Your task to perform on an android device: change alarm snooze length Image 0: 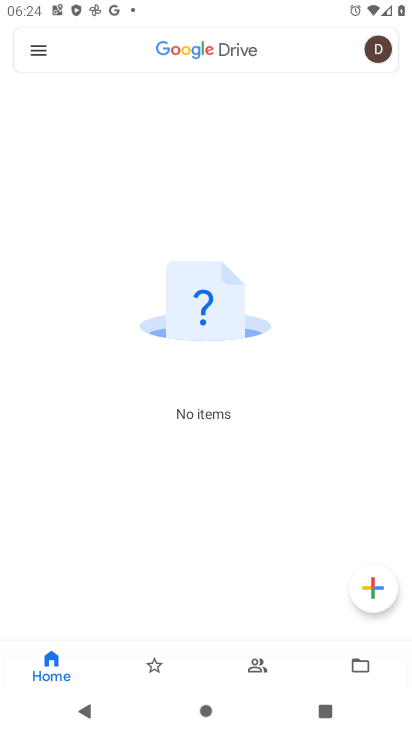
Step 0: click (129, 587)
Your task to perform on an android device: change alarm snooze length Image 1: 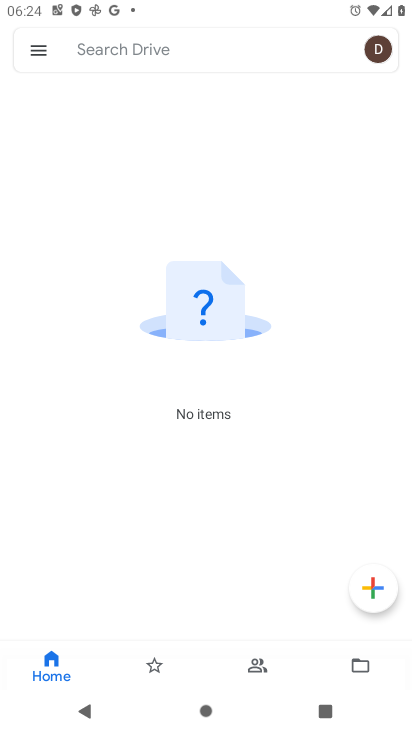
Step 1: press home button
Your task to perform on an android device: change alarm snooze length Image 2: 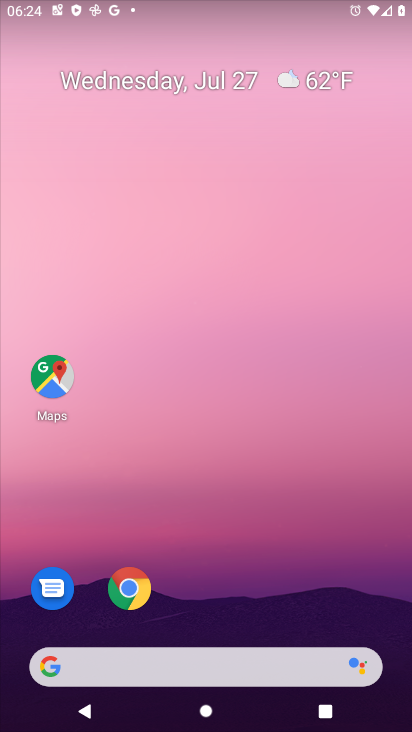
Step 2: drag from (185, 605) to (164, 198)
Your task to perform on an android device: change alarm snooze length Image 3: 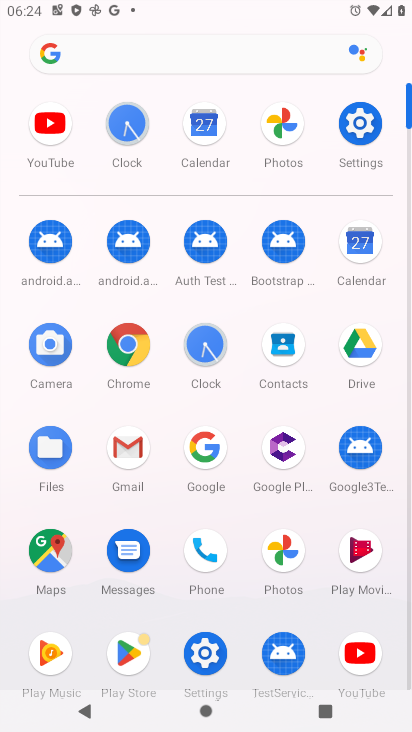
Step 3: click (199, 339)
Your task to perform on an android device: change alarm snooze length Image 4: 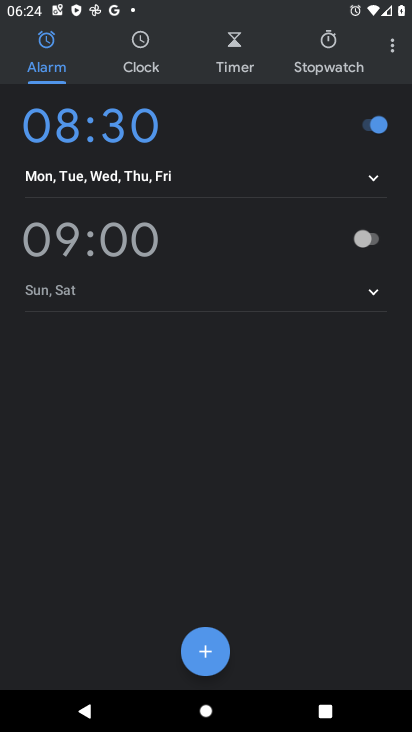
Step 4: click (394, 44)
Your task to perform on an android device: change alarm snooze length Image 5: 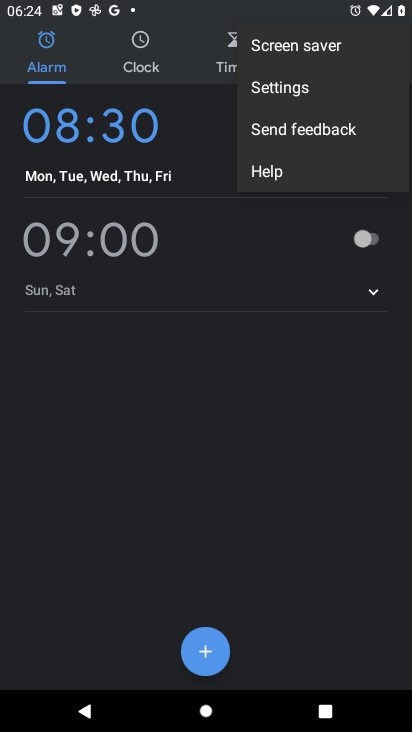
Step 5: click (260, 87)
Your task to perform on an android device: change alarm snooze length Image 6: 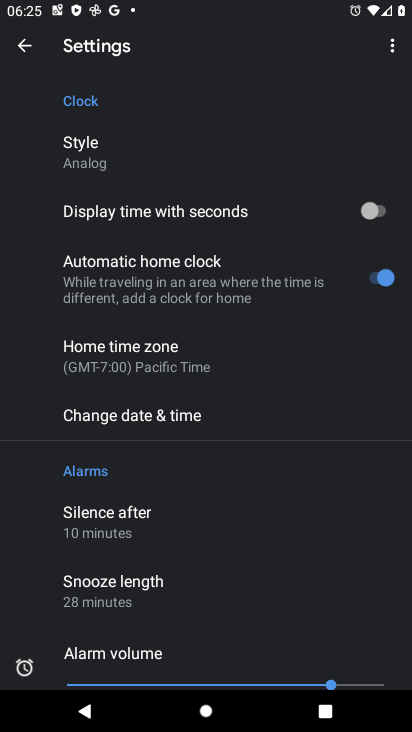
Step 6: click (98, 597)
Your task to perform on an android device: change alarm snooze length Image 7: 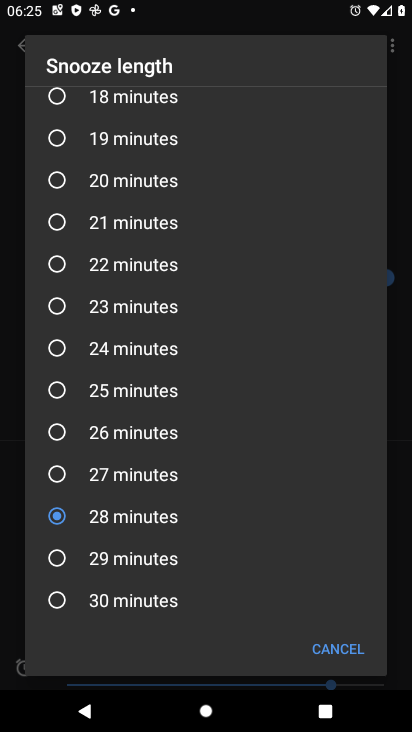
Step 7: click (61, 394)
Your task to perform on an android device: change alarm snooze length Image 8: 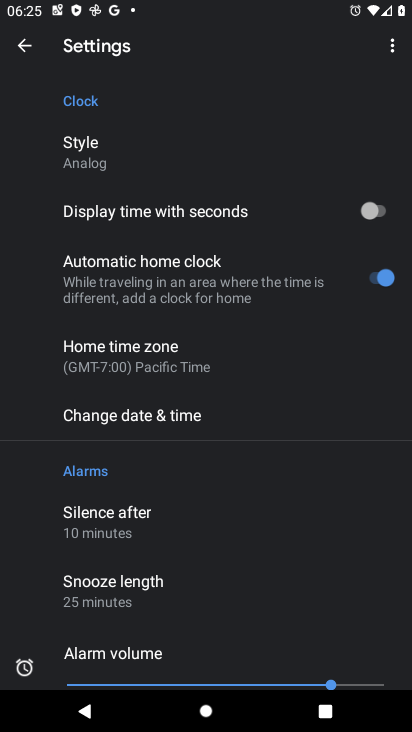
Step 8: task complete